Your task to perform on an android device: delete browsing data in the chrome app Image 0: 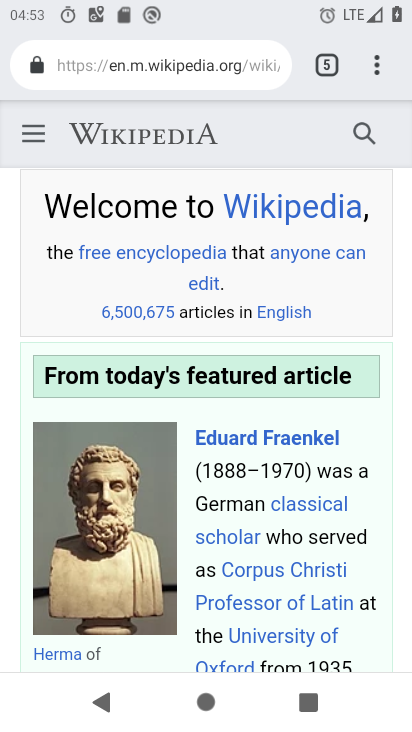
Step 0: drag from (385, 59) to (154, 367)
Your task to perform on an android device: delete browsing data in the chrome app Image 1: 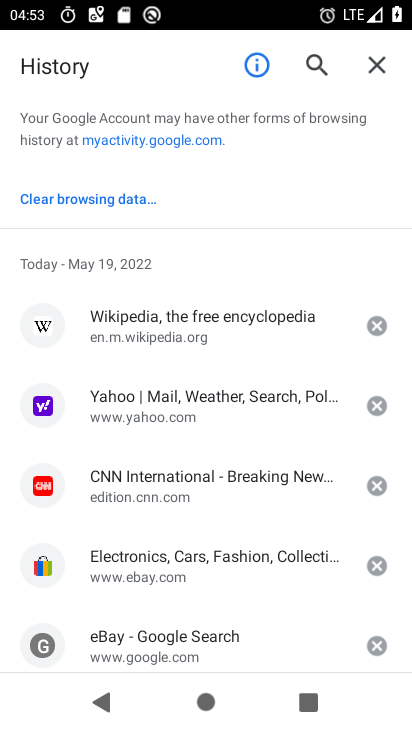
Step 1: click (108, 197)
Your task to perform on an android device: delete browsing data in the chrome app Image 2: 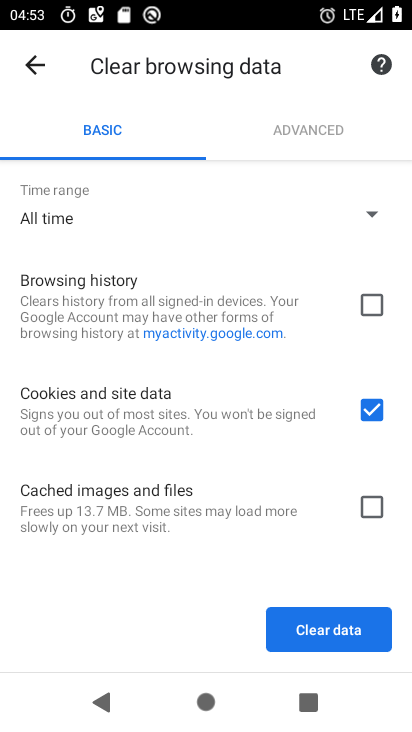
Step 2: click (372, 305)
Your task to perform on an android device: delete browsing data in the chrome app Image 3: 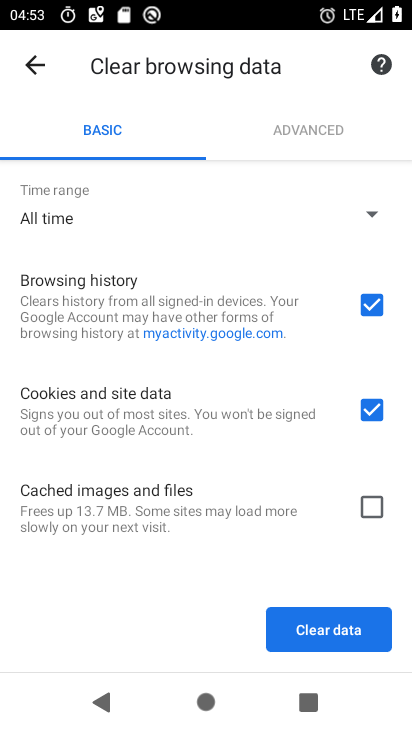
Step 3: click (376, 503)
Your task to perform on an android device: delete browsing data in the chrome app Image 4: 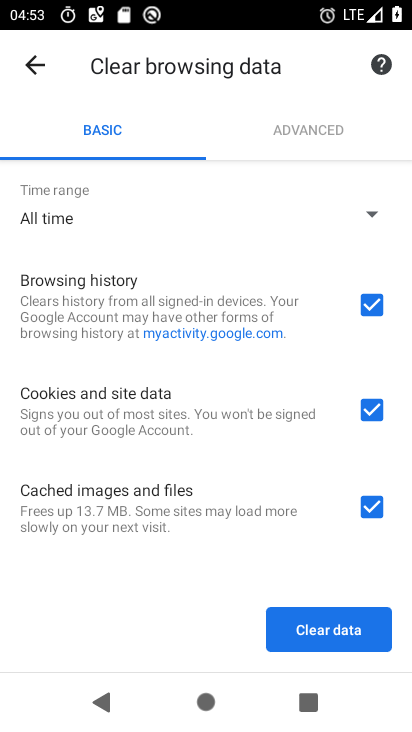
Step 4: click (321, 633)
Your task to perform on an android device: delete browsing data in the chrome app Image 5: 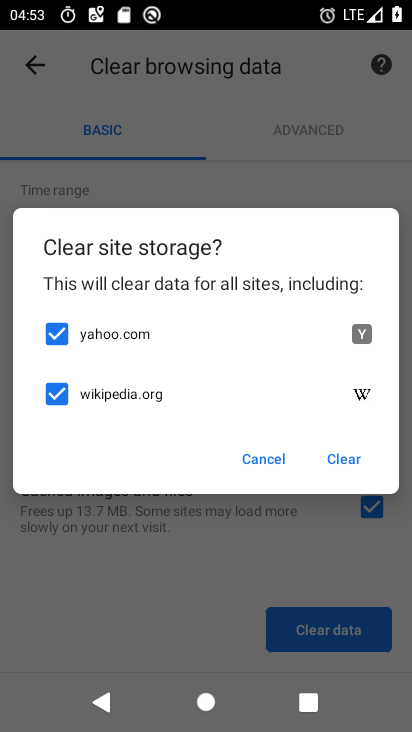
Step 5: click (352, 457)
Your task to perform on an android device: delete browsing data in the chrome app Image 6: 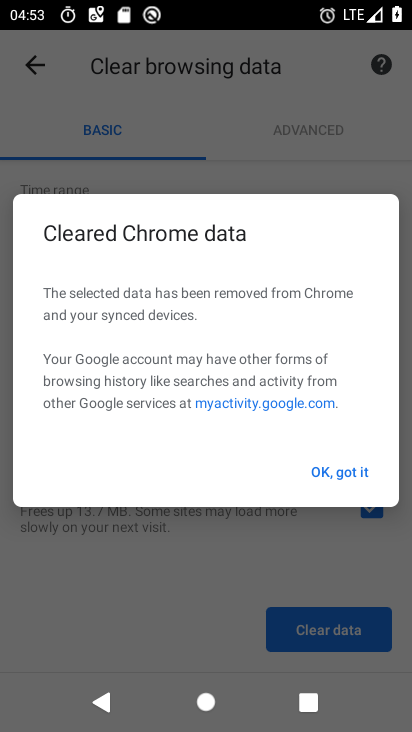
Step 6: click (329, 472)
Your task to perform on an android device: delete browsing data in the chrome app Image 7: 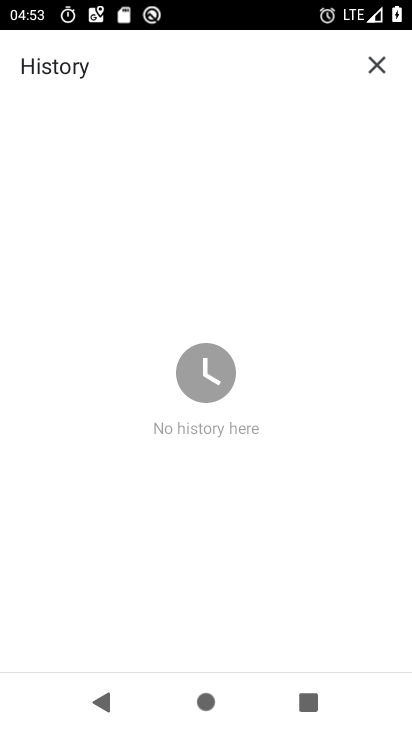
Step 7: task complete